Your task to perform on an android device: Open Android settings Image 0: 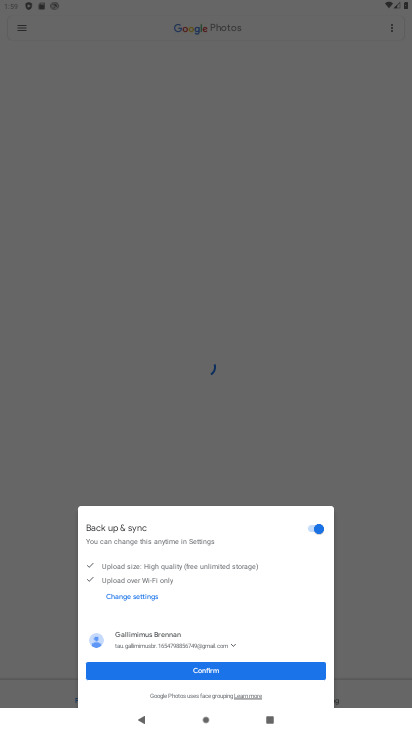
Step 0: press home button
Your task to perform on an android device: Open Android settings Image 1: 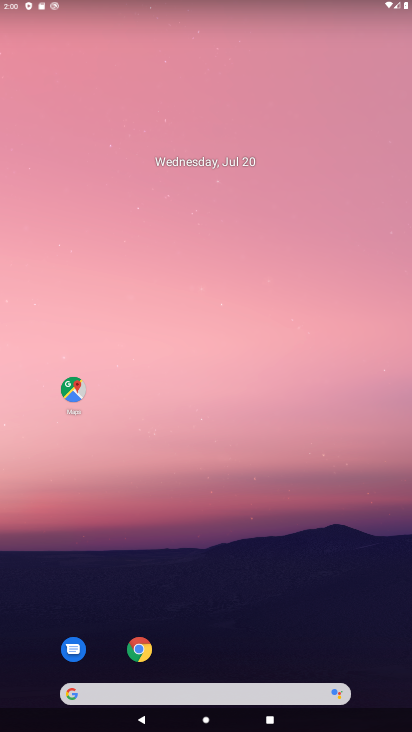
Step 1: click (306, 233)
Your task to perform on an android device: Open Android settings Image 2: 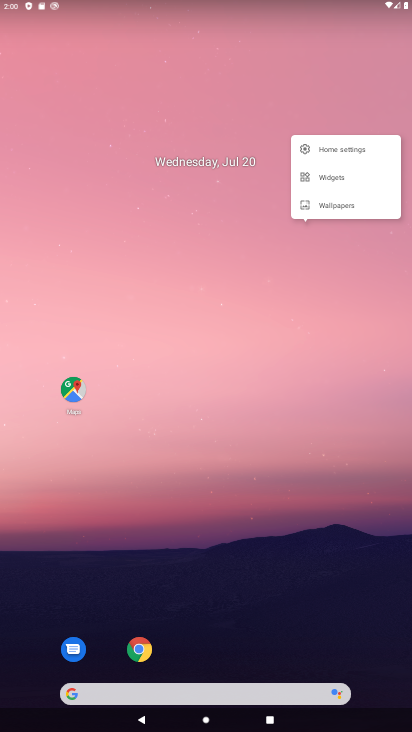
Step 2: drag from (204, 659) to (257, 251)
Your task to perform on an android device: Open Android settings Image 3: 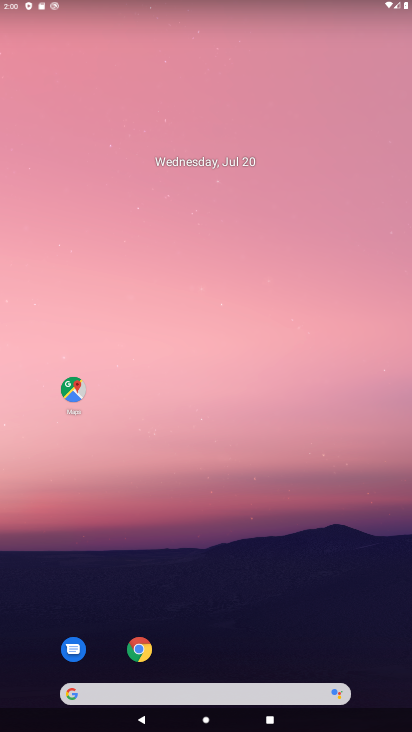
Step 3: drag from (220, 675) to (279, 254)
Your task to perform on an android device: Open Android settings Image 4: 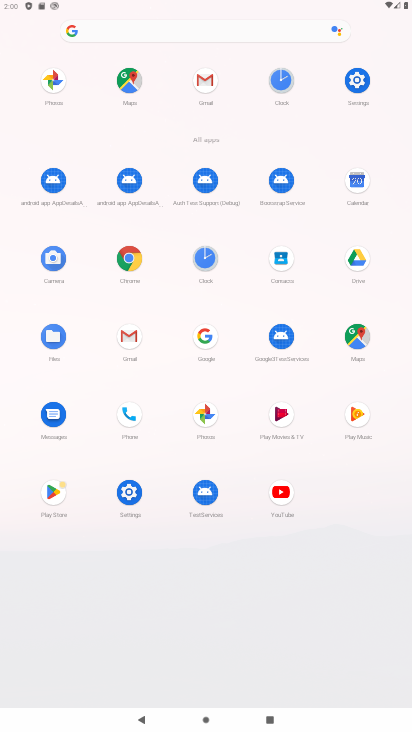
Step 4: click (141, 503)
Your task to perform on an android device: Open Android settings Image 5: 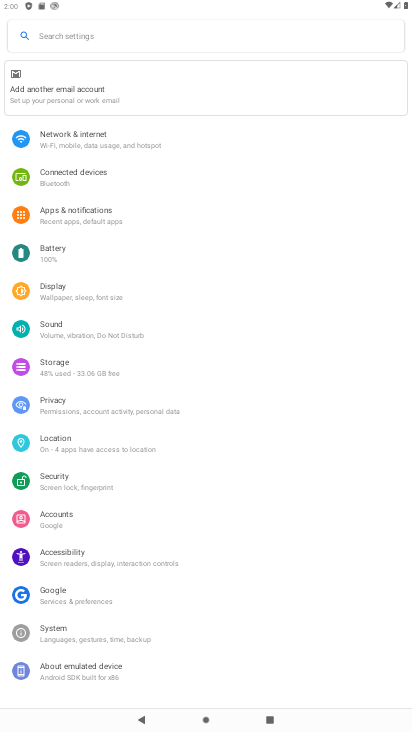
Step 5: task complete